Your task to perform on an android device: Open accessibility settings Image 0: 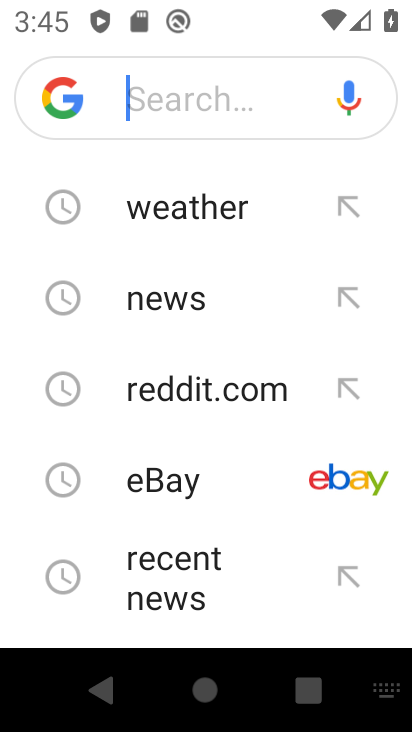
Step 0: press home button
Your task to perform on an android device: Open accessibility settings Image 1: 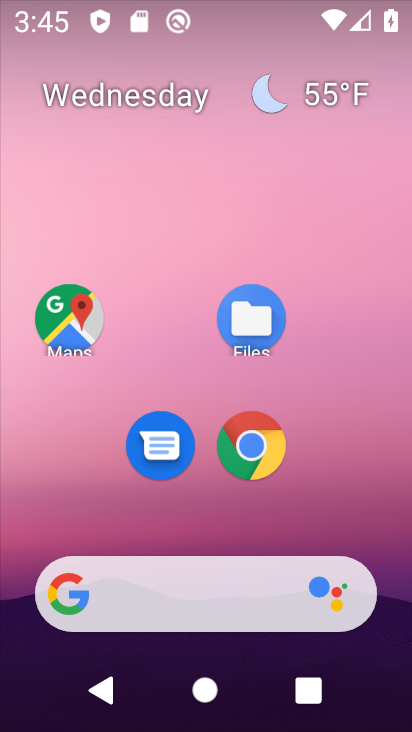
Step 1: drag from (359, 524) to (340, 331)
Your task to perform on an android device: Open accessibility settings Image 2: 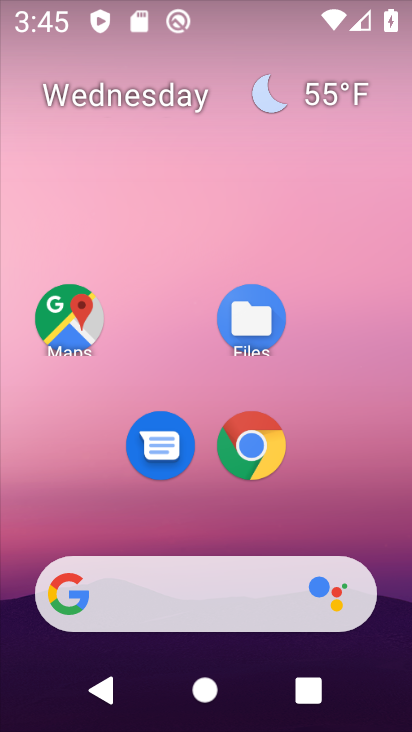
Step 2: drag from (380, 657) to (328, 284)
Your task to perform on an android device: Open accessibility settings Image 3: 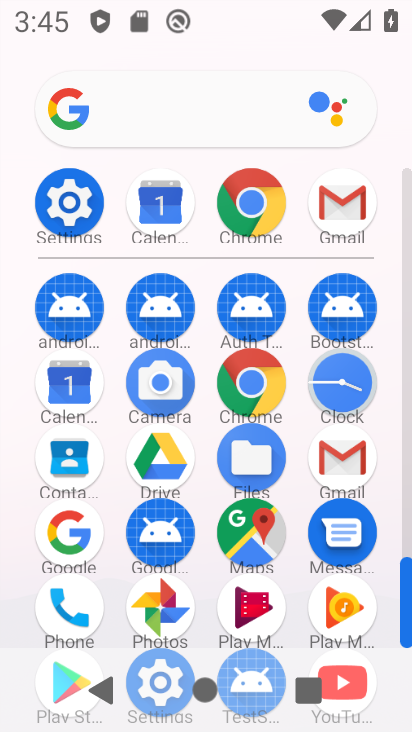
Step 3: click (63, 215)
Your task to perform on an android device: Open accessibility settings Image 4: 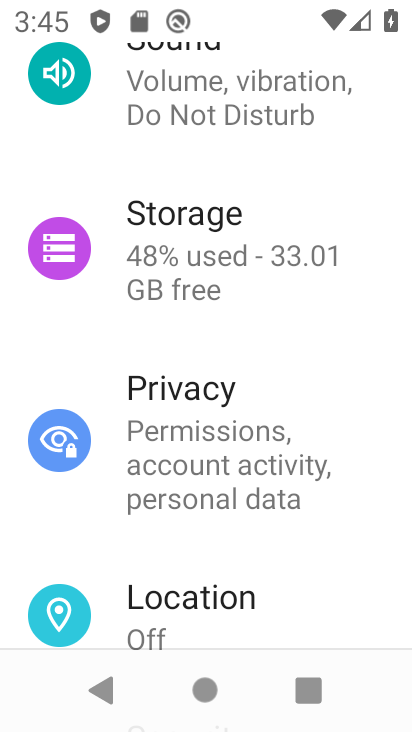
Step 4: drag from (274, 178) to (272, 684)
Your task to perform on an android device: Open accessibility settings Image 5: 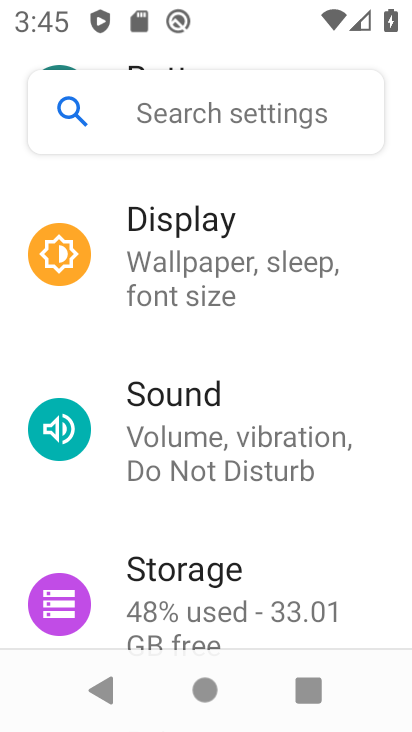
Step 5: drag from (346, 325) to (345, 478)
Your task to perform on an android device: Open accessibility settings Image 6: 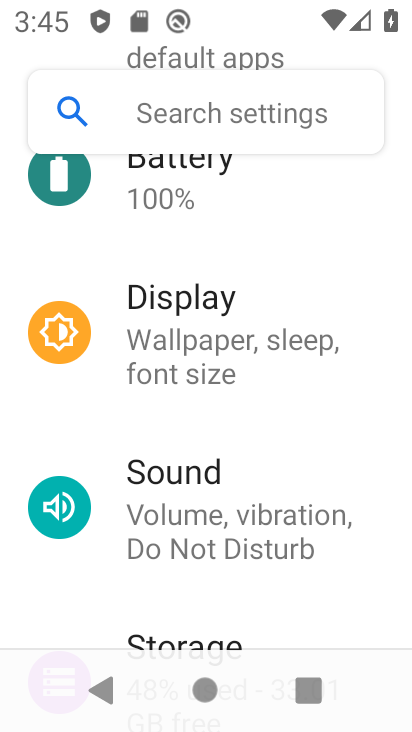
Step 6: drag from (397, 293) to (362, 711)
Your task to perform on an android device: Open accessibility settings Image 7: 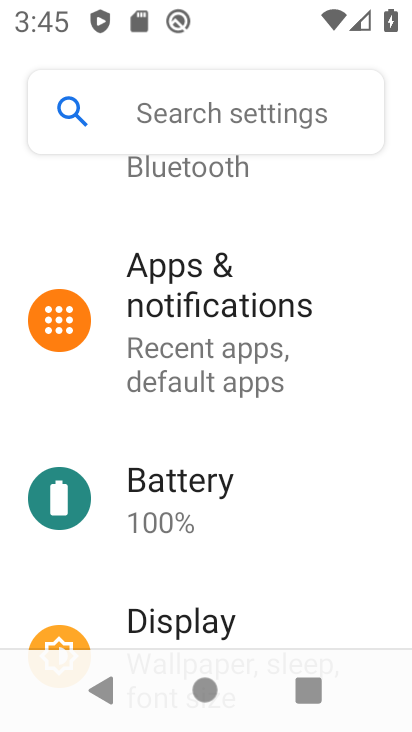
Step 7: click (368, 226)
Your task to perform on an android device: Open accessibility settings Image 8: 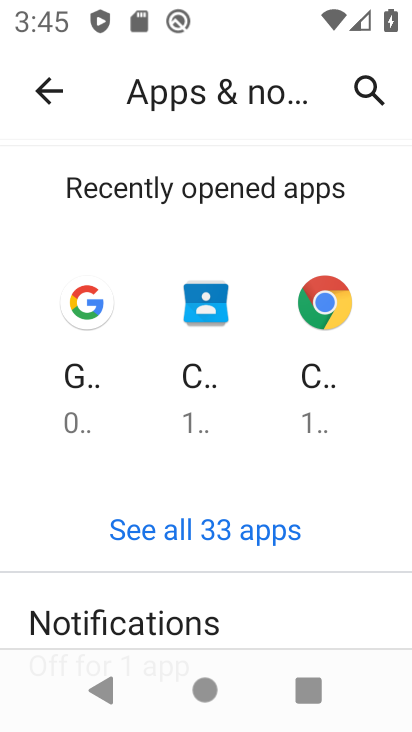
Step 8: press back button
Your task to perform on an android device: Open accessibility settings Image 9: 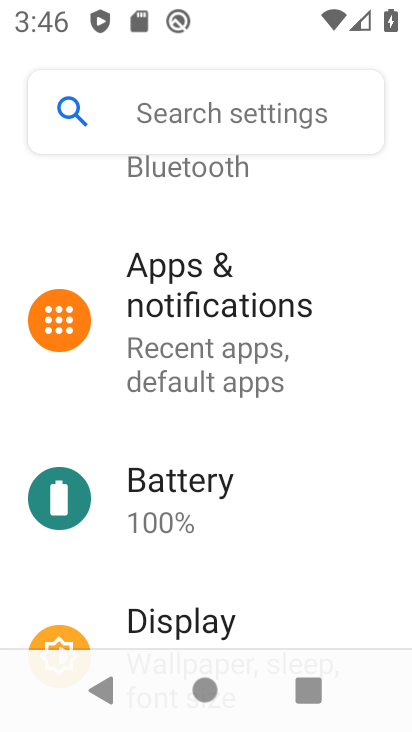
Step 9: drag from (319, 529) to (271, 50)
Your task to perform on an android device: Open accessibility settings Image 10: 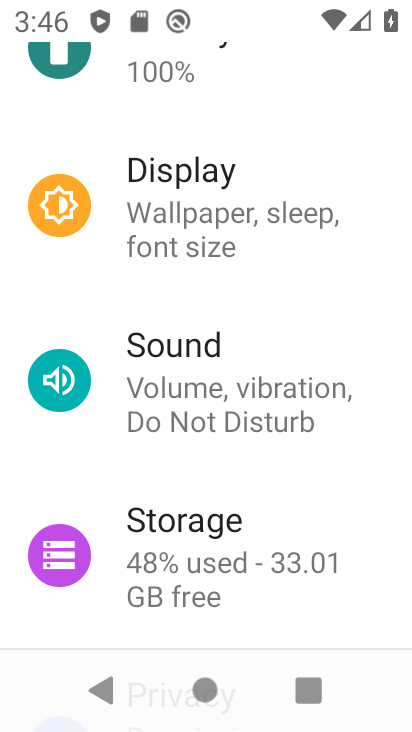
Step 10: drag from (386, 535) to (356, 196)
Your task to perform on an android device: Open accessibility settings Image 11: 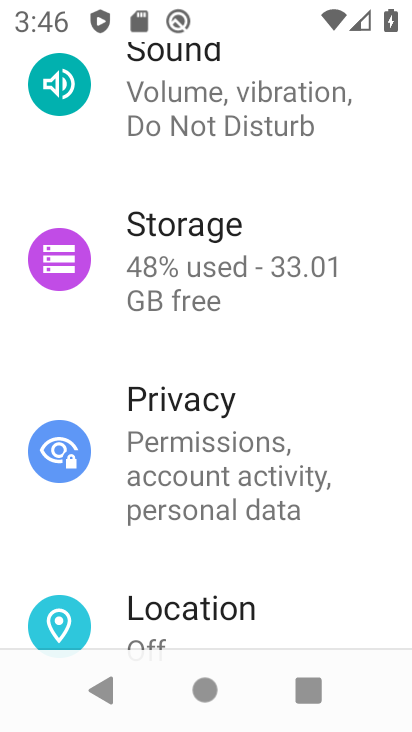
Step 11: drag from (329, 620) to (341, 181)
Your task to perform on an android device: Open accessibility settings Image 12: 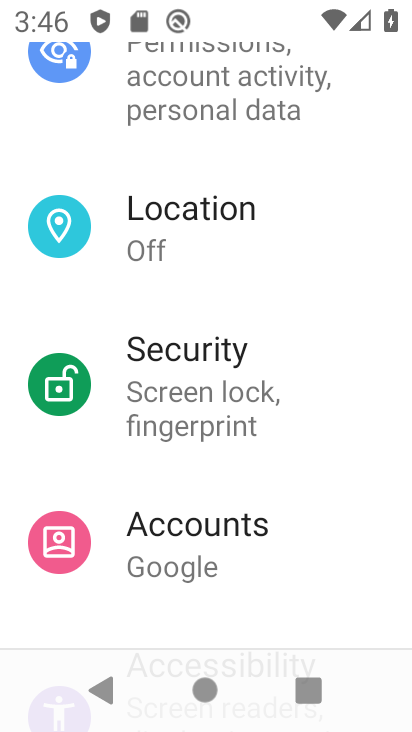
Step 12: drag from (351, 541) to (322, 203)
Your task to perform on an android device: Open accessibility settings Image 13: 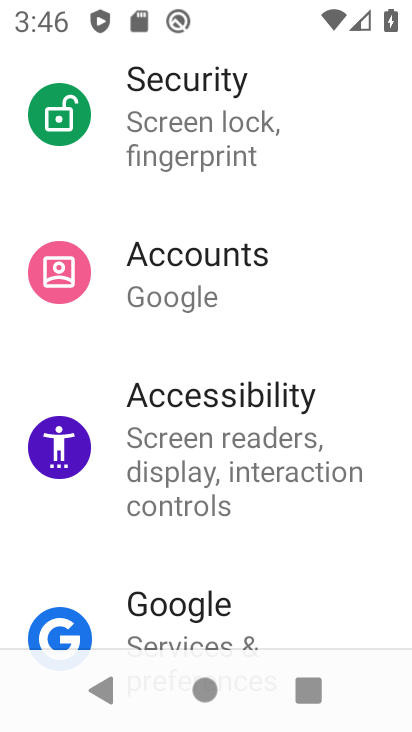
Step 13: click (272, 395)
Your task to perform on an android device: Open accessibility settings Image 14: 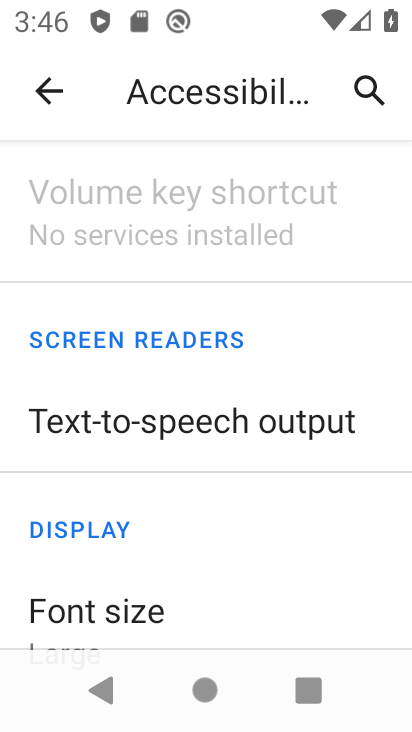
Step 14: task complete